Your task to perform on an android device: turn off location Image 0: 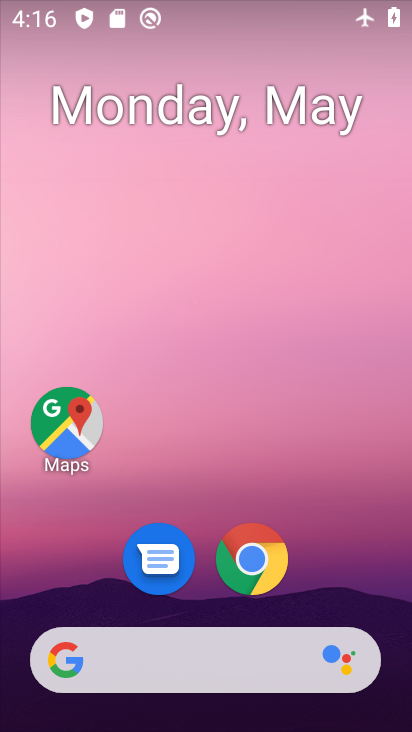
Step 0: drag from (213, 288) to (168, 637)
Your task to perform on an android device: turn off location Image 1: 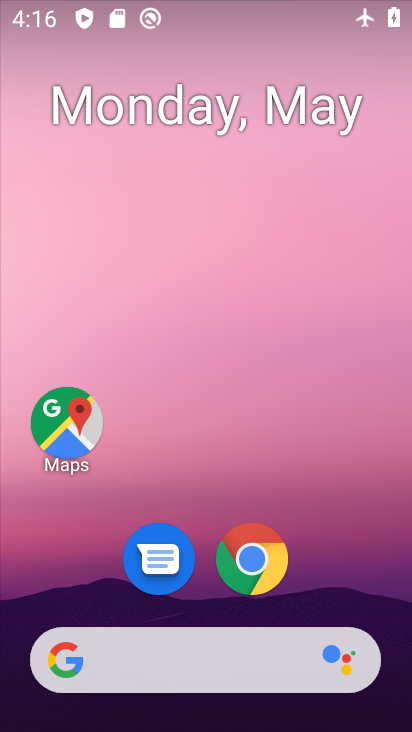
Step 1: drag from (232, 653) to (303, 10)
Your task to perform on an android device: turn off location Image 2: 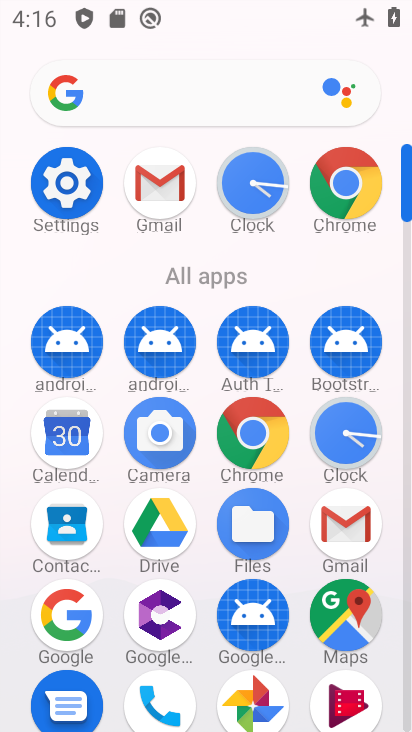
Step 2: click (76, 175)
Your task to perform on an android device: turn off location Image 3: 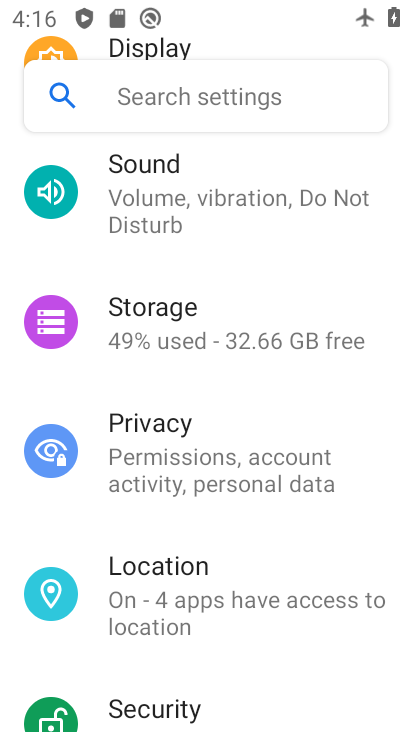
Step 3: click (227, 605)
Your task to perform on an android device: turn off location Image 4: 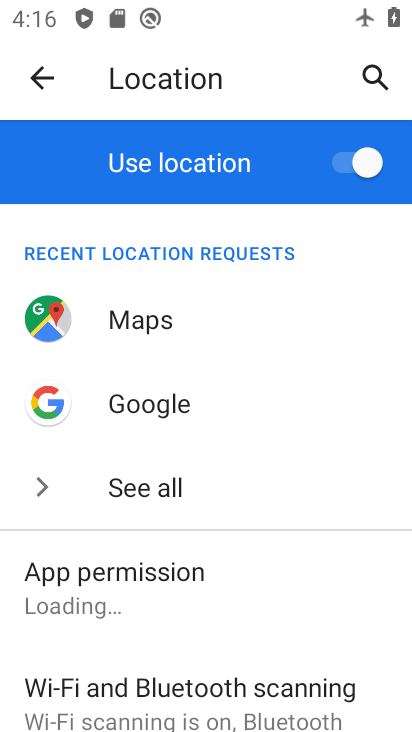
Step 4: click (355, 168)
Your task to perform on an android device: turn off location Image 5: 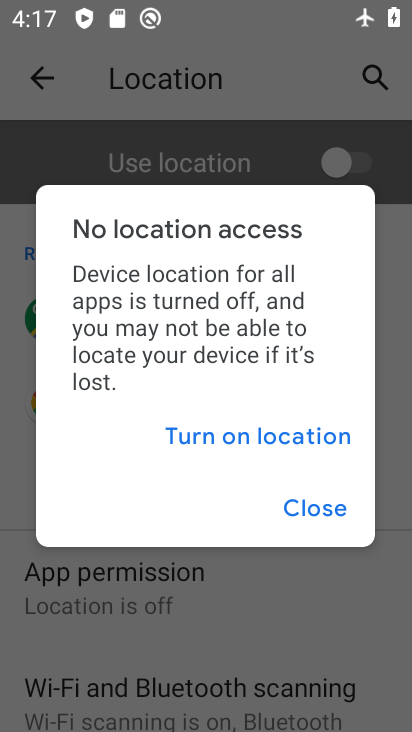
Step 5: click (306, 514)
Your task to perform on an android device: turn off location Image 6: 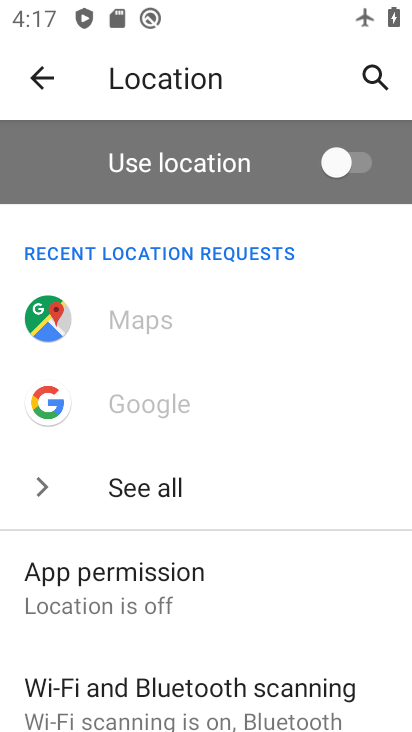
Step 6: task complete